Your task to perform on an android device: toggle airplane mode Image 0: 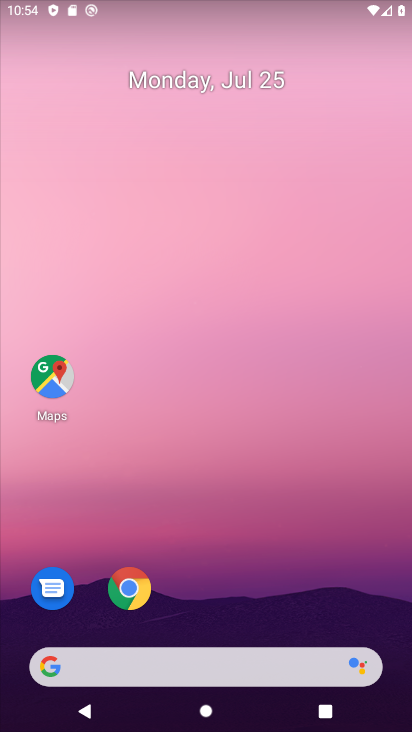
Step 0: drag from (213, 608) to (191, 144)
Your task to perform on an android device: toggle airplane mode Image 1: 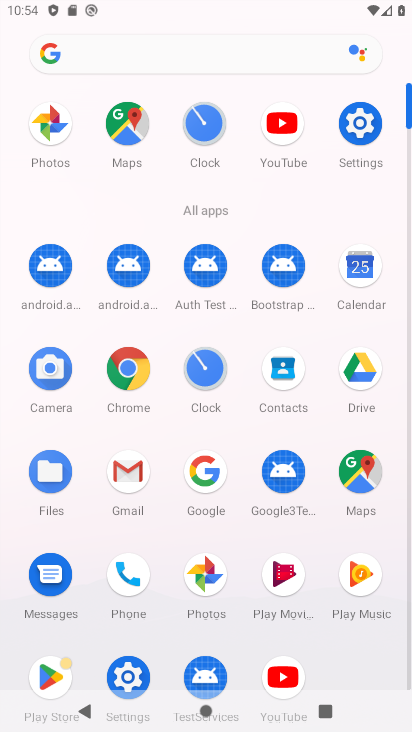
Step 1: click (351, 135)
Your task to perform on an android device: toggle airplane mode Image 2: 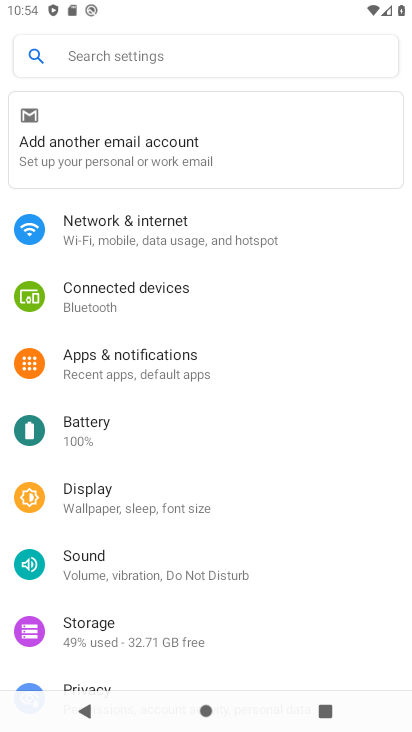
Step 2: click (157, 243)
Your task to perform on an android device: toggle airplane mode Image 3: 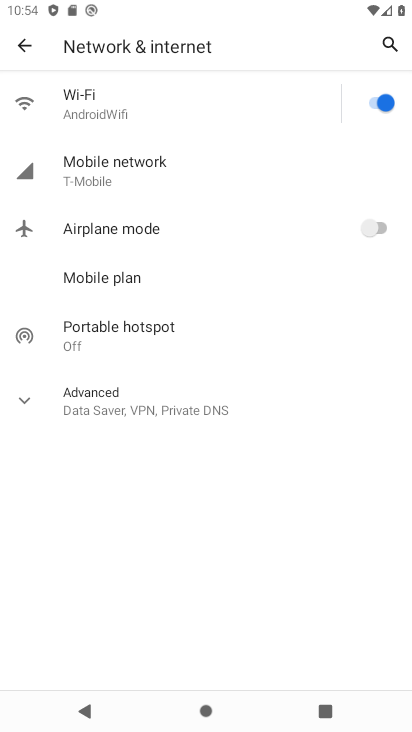
Step 3: click (389, 228)
Your task to perform on an android device: toggle airplane mode Image 4: 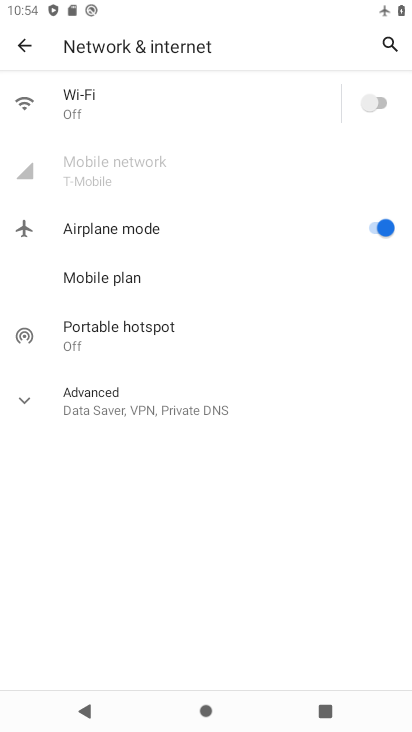
Step 4: task complete